Your task to perform on an android device: Go to settings Image 0: 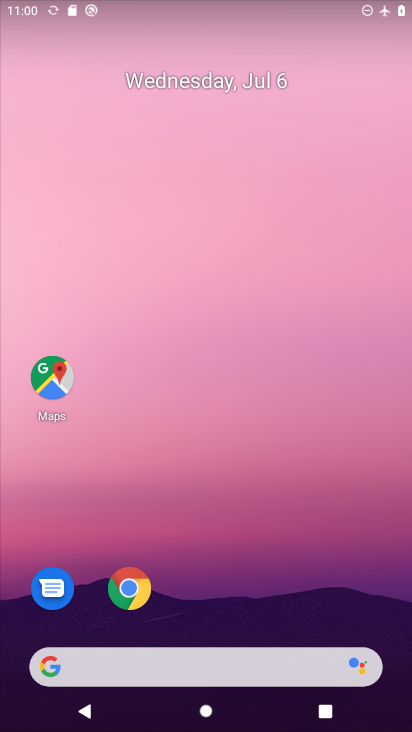
Step 0: drag from (301, 609) to (237, 149)
Your task to perform on an android device: Go to settings Image 1: 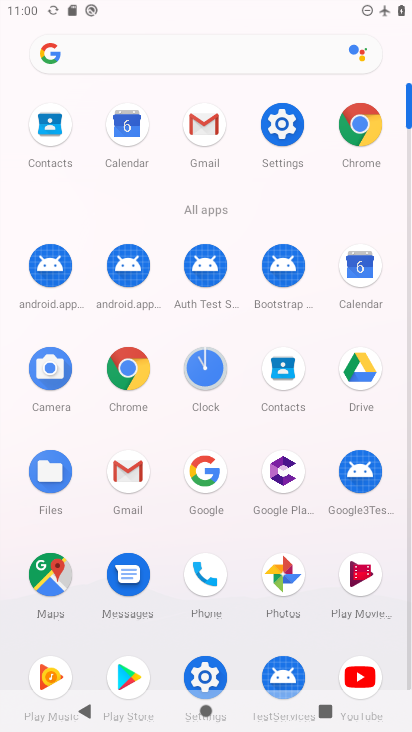
Step 1: click (286, 144)
Your task to perform on an android device: Go to settings Image 2: 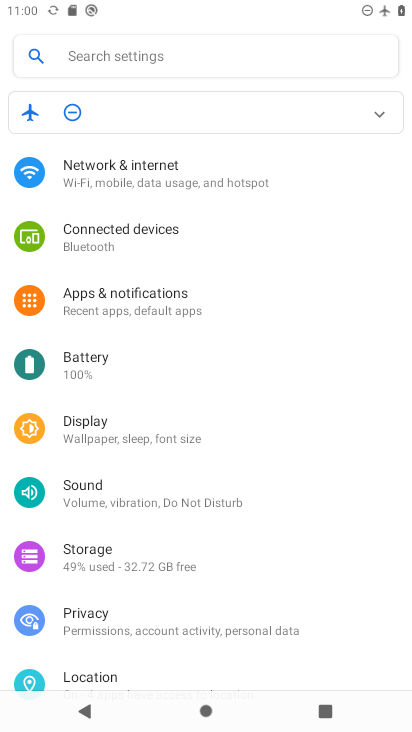
Step 2: task complete